Your task to perform on an android device: turn on the 24-hour format for clock Image 0: 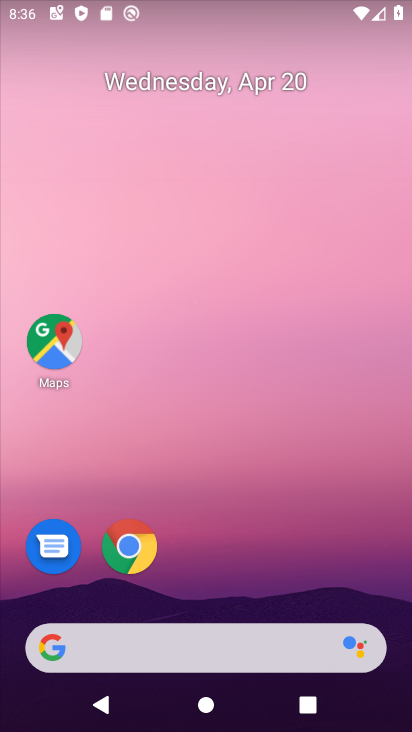
Step 0: drag from (317, 577) to (286, 4)
Your task to perform on an android device: turn on the 24-hour format for clock Image 1: 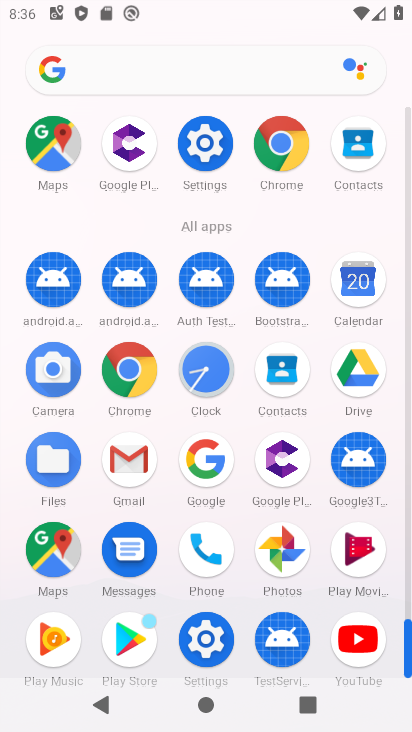
Step 1: click (216, 371)
Your task to perform on an android device: turn on the 24-hour format for clock Image 2: 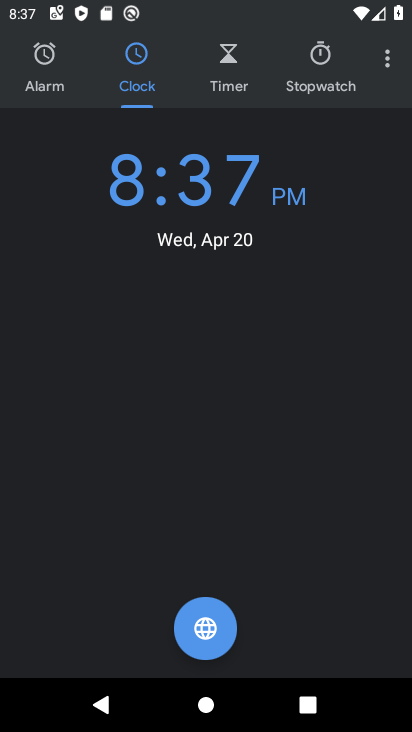
Step 2: click (390, 44)
Your task to perform on an android device: turn on the 24-hour format for clock Image 3: 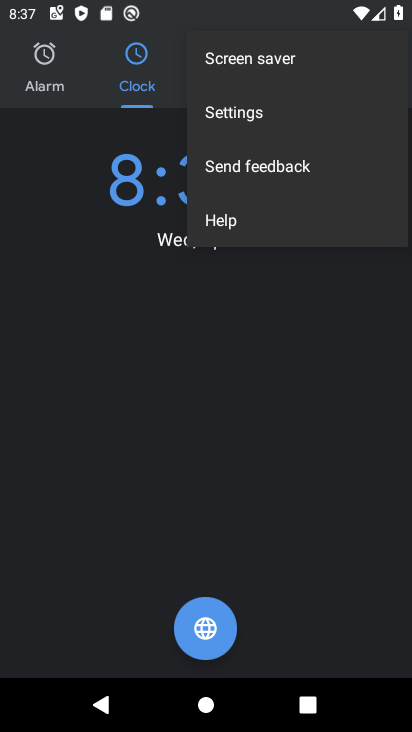
Step 3: click (262, 105)
Your task to perform on an android device: turn on the 24-hour format for clock Image 4: 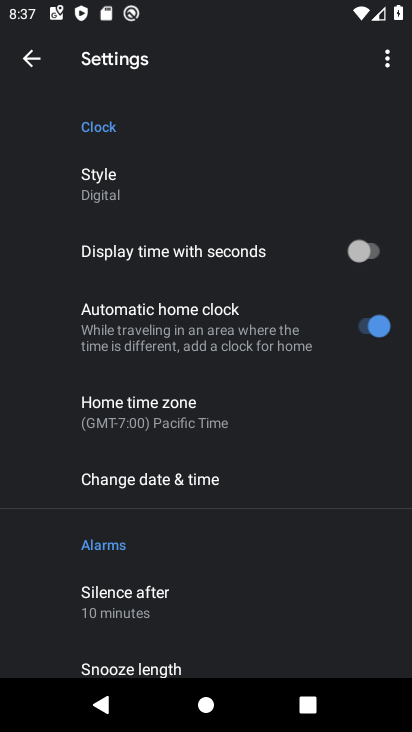
Step 4: drag from (294, 535) to (228, 72)
Your task to perform on an android device: turn on the 24-hour format for clock Image 5: 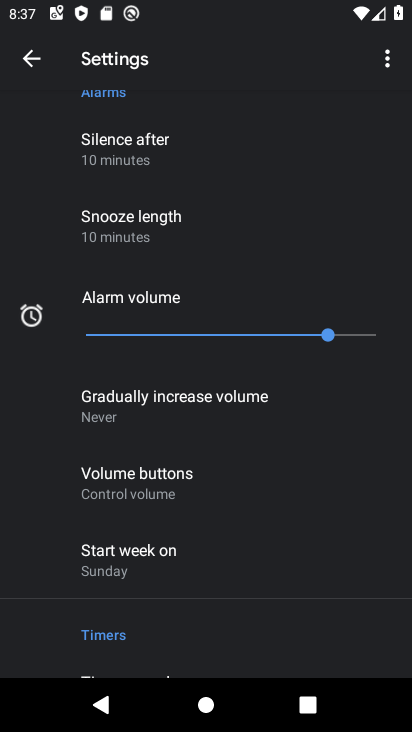
Step 5: drag from (257, 609) to (232, 150)
Your task to perform on an android device: turn on the 24-hour format for clock Image 6: 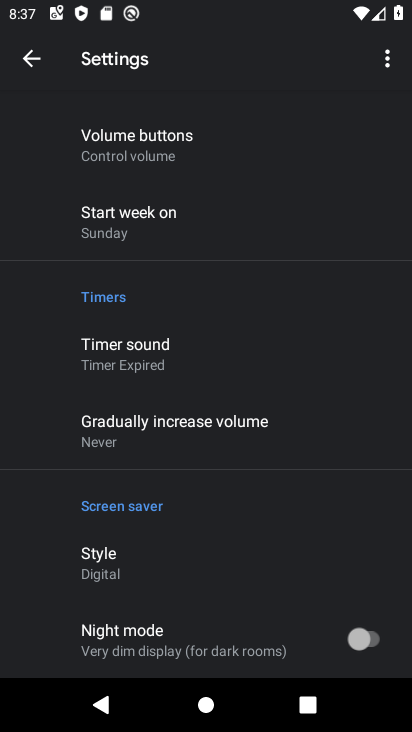
Step 6: drag from (214, 234) to (187, 682)
Your task to perform on an android device: turn on the 24-hour format for clock Image 7: 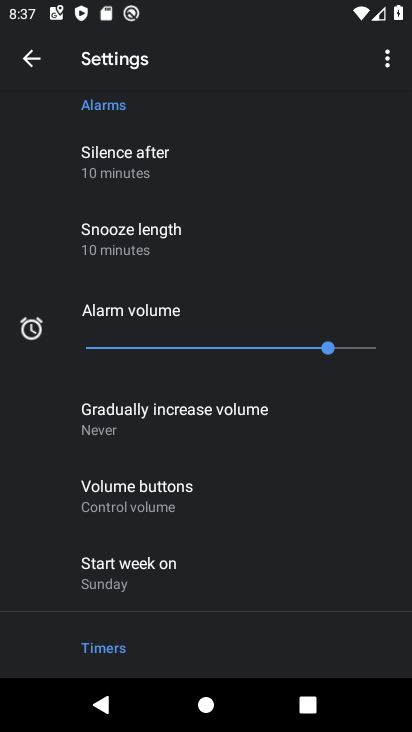
Step 7: drag from (193, 188) to (189, 468)
Your task to perform on an android device: turn on the 24-hour format for clock Image 8: 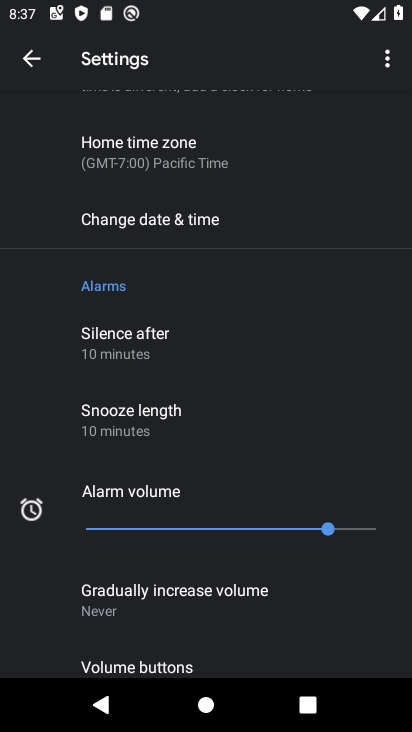
Step 8: click (189, 222)
Your task to perform on an android device: turn on the 24-hour format for clock Image 9: 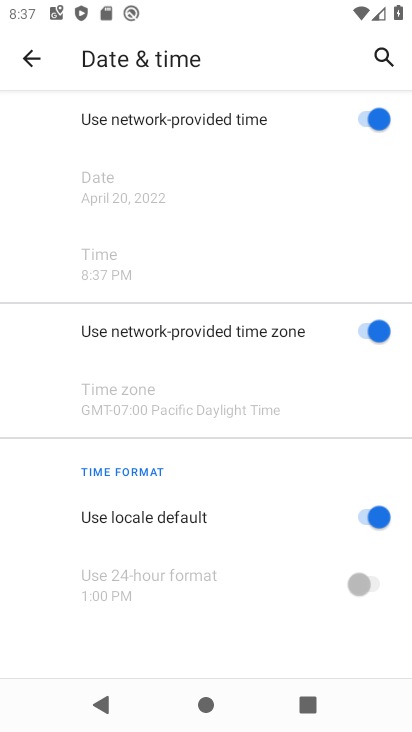
Step 9: click (371, 505)
Your task to perform on an android device: turn on the 24-hour format for clock Image 10: 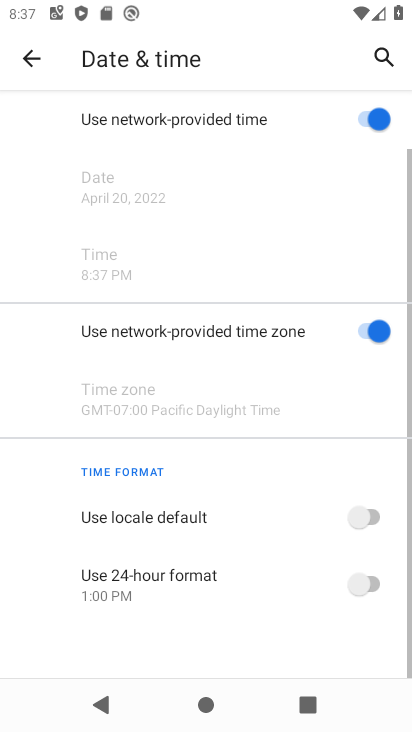
Step 10: click (359, 581)
Your task to perform on an android device: turn on the 24-hour format for clock Image 11: 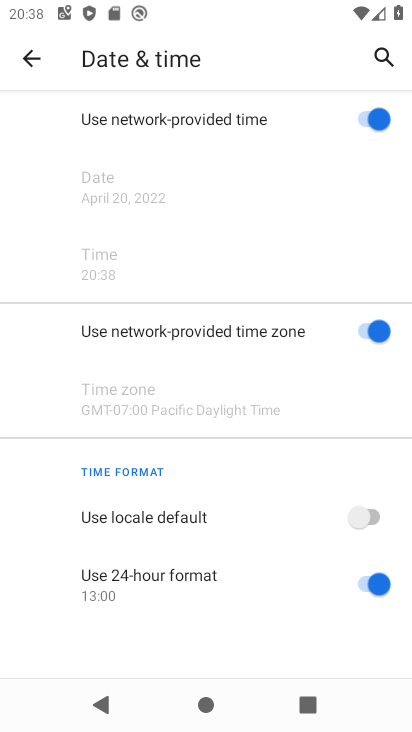
Step 11: task complete